Your task to perform on an android device: Go to Google maps Image 0: 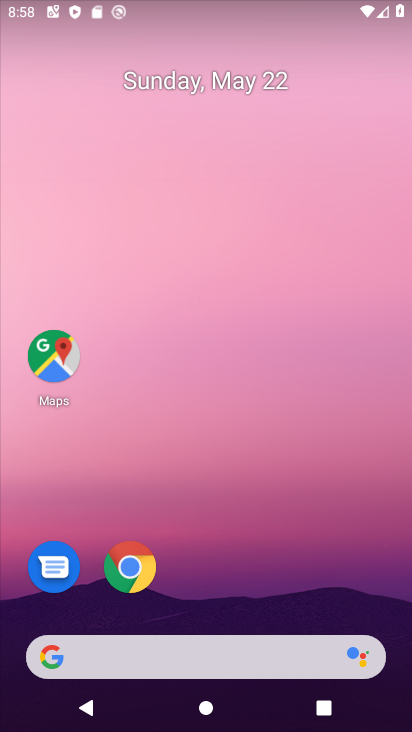
Step 0: click (53, 350)
Your task to perform on an android device: Go to Google maps Image 1: 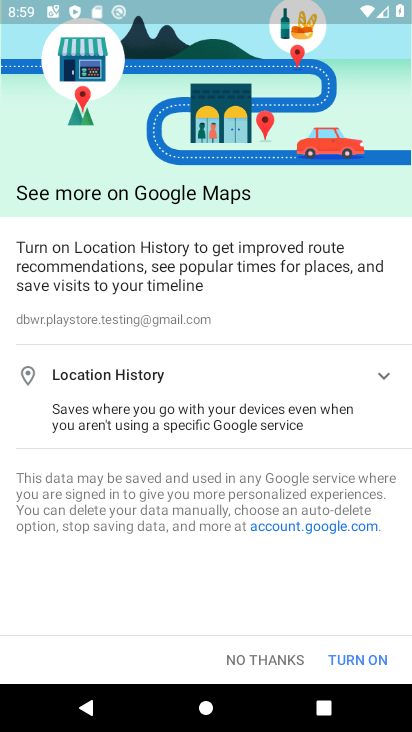
Step 1: click (352, 662)
Your task to perform on an android device: Go to Google maps Image 2: 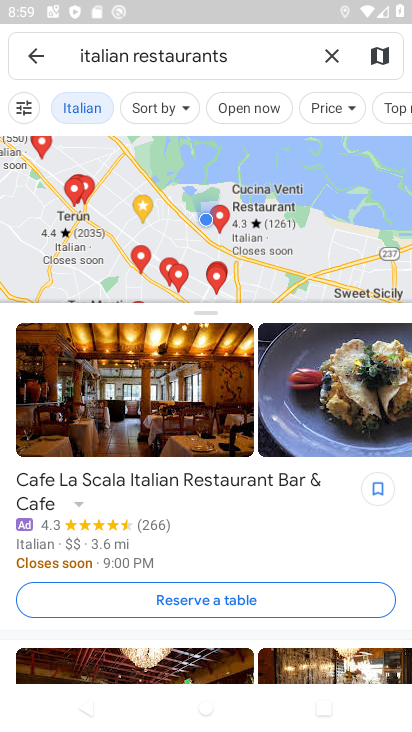
Step 2: click (31, 55)
Your task to perform on an android device: Go to Google maps Image 3: 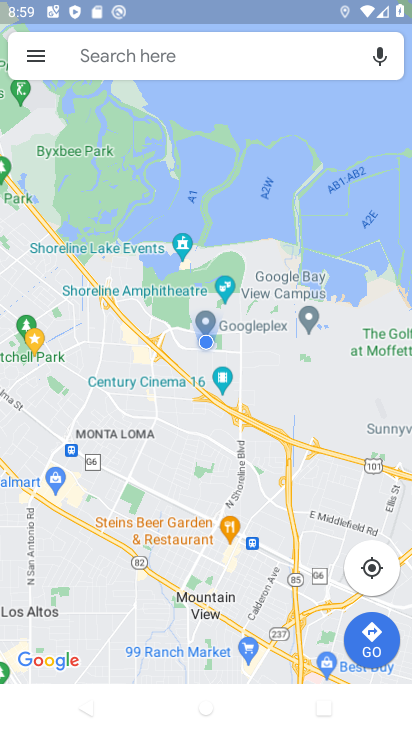
Step 3: task complete